Your task to perform on an android device: What's the weather? Image 0: 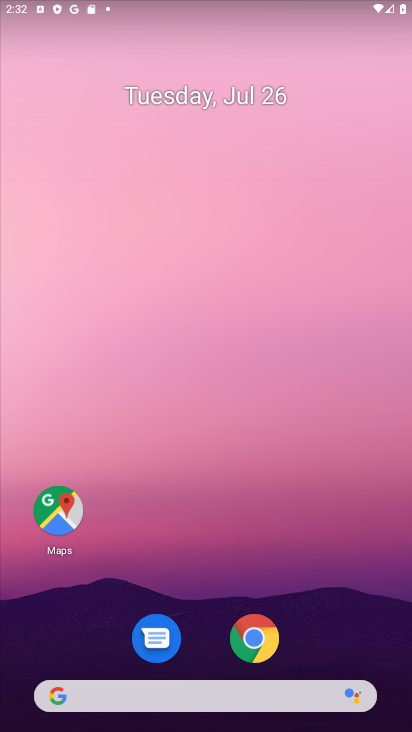
Step 0: click (332, 634)
Your task to perform on an android device: What's the weather? Image 1: 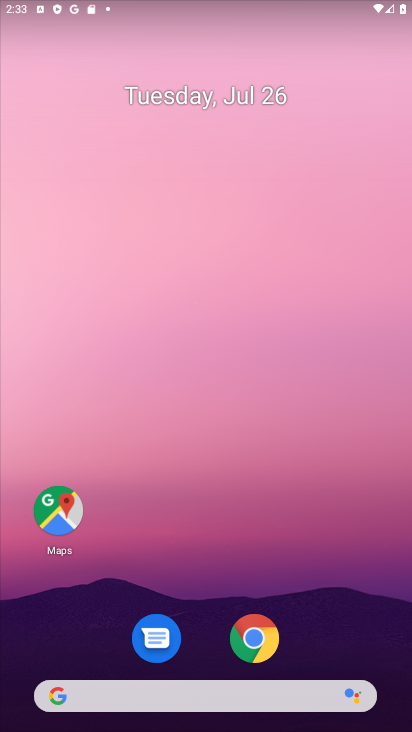
Step 1: click (199, 701)
Your task to perform on an android device: What's the weather? Image 2: 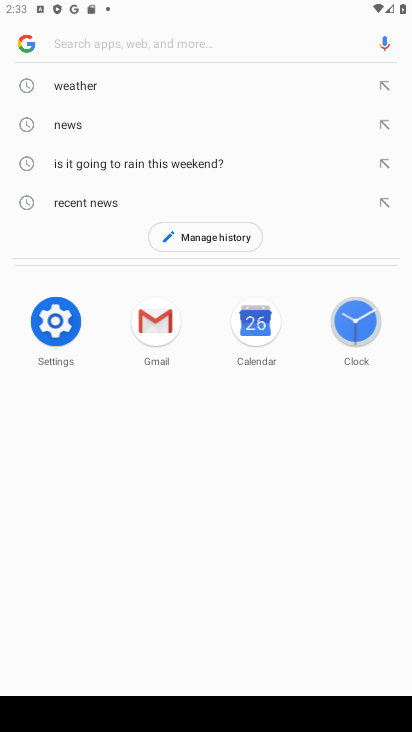
Step 2: click (89, 87)
Your task to perform on an android device: What's the weather? Image 3: 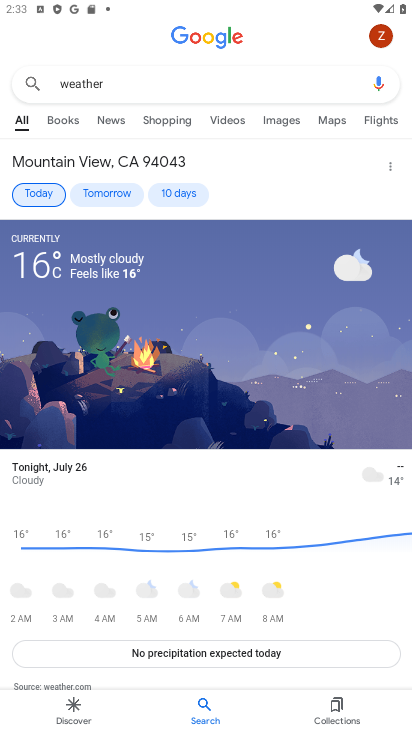
Step 3: task complete